Your task to perform on an android device: Search for "corsair k70" on bestbuy, select the first entry, and add it to the cart. Image 0: 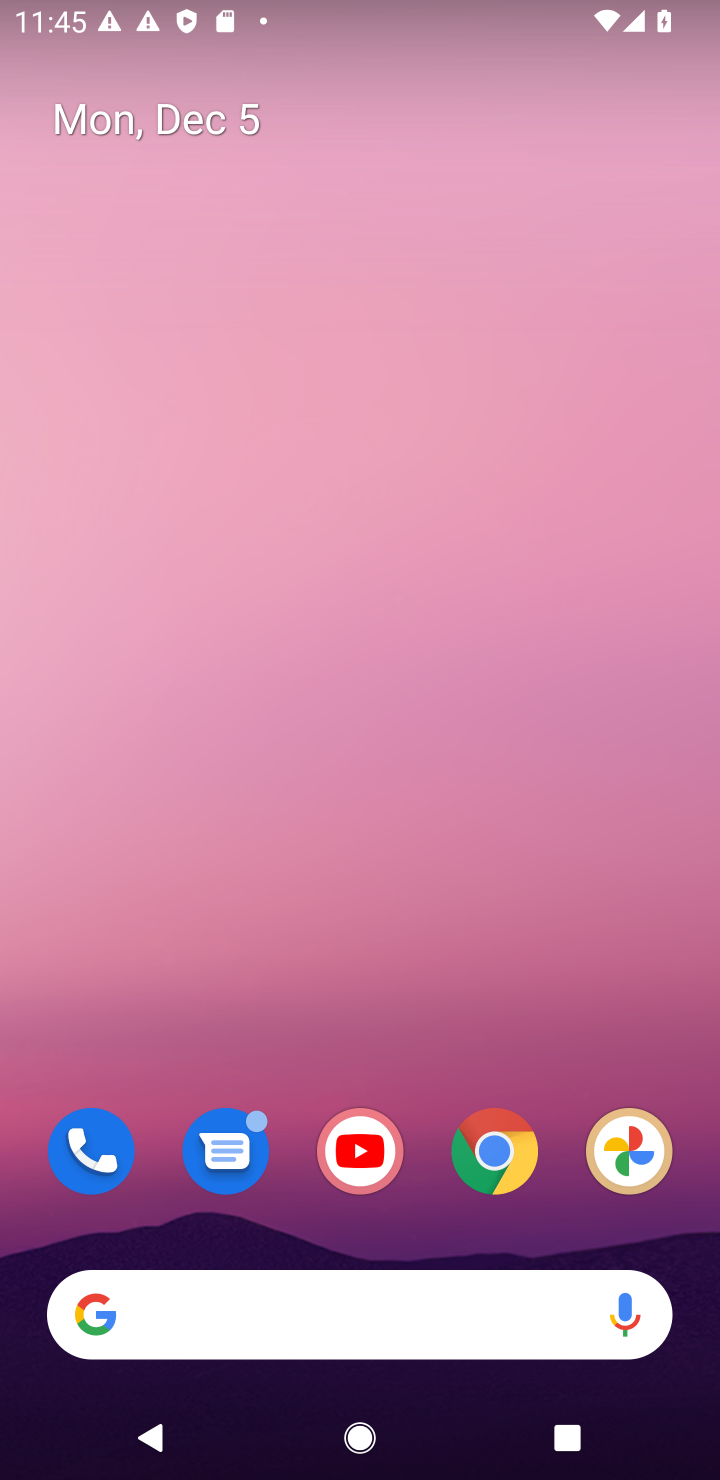
Step 0: click (499, 1172)
Your task to perform on an android device: Search for "corsair k70" on bestbuy, select the first entry, and add it to the cart. Image 1: 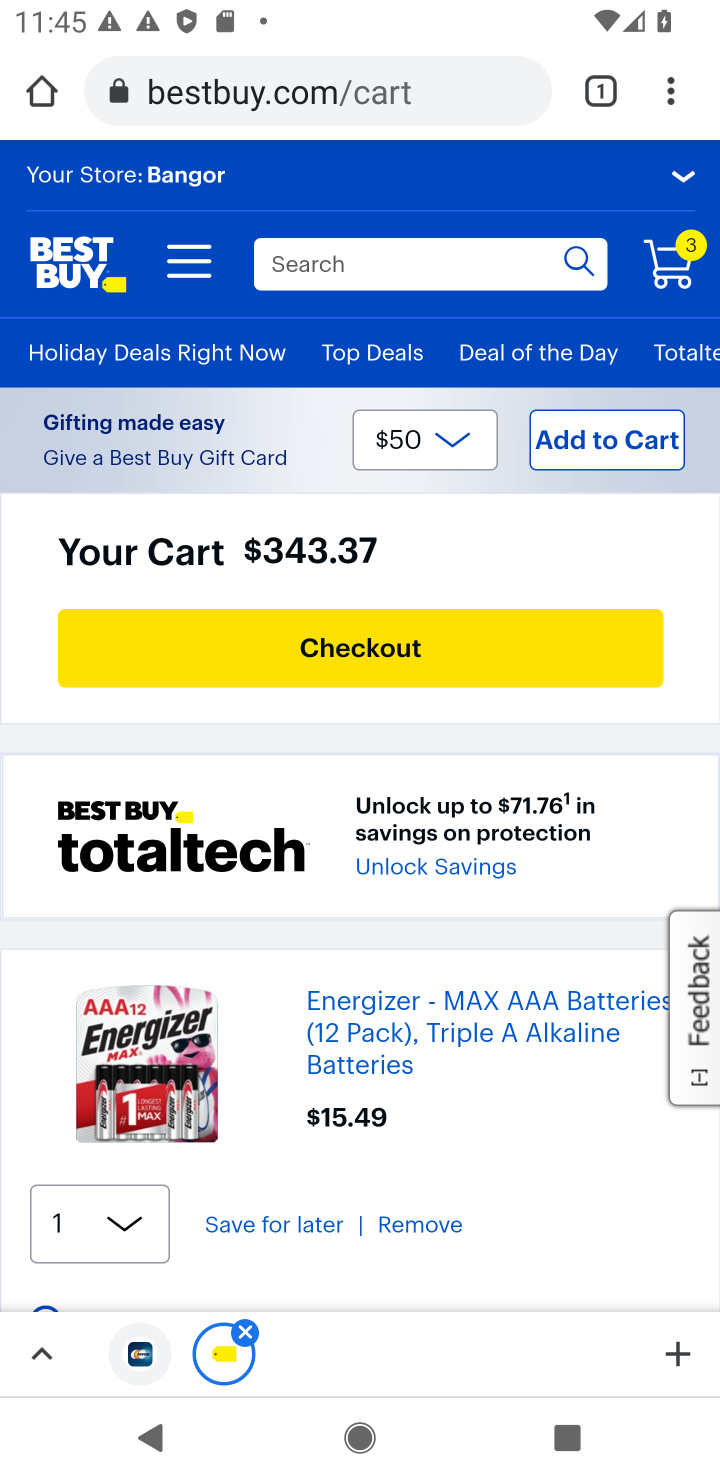
Step 1: click (308, 268)
Your task to perform on an android device: Search for "corsair k70" on bestbuy, select the first entry, and add it to the cart. Image 2: 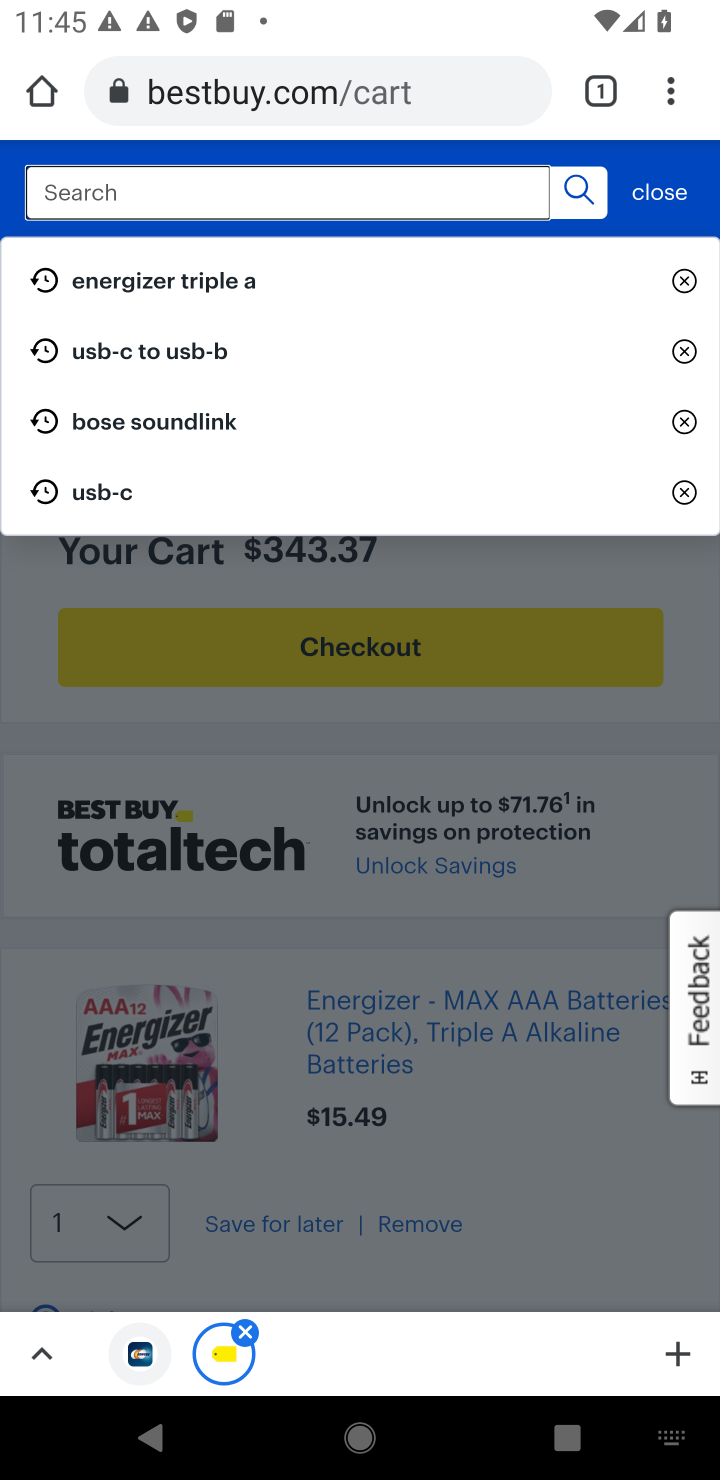
Step 2: type "corsair k70"
Your task to perform on an android device: Search for "corsair k70" on bestbuy, select the first entry, and add it to the cart. Image 3: 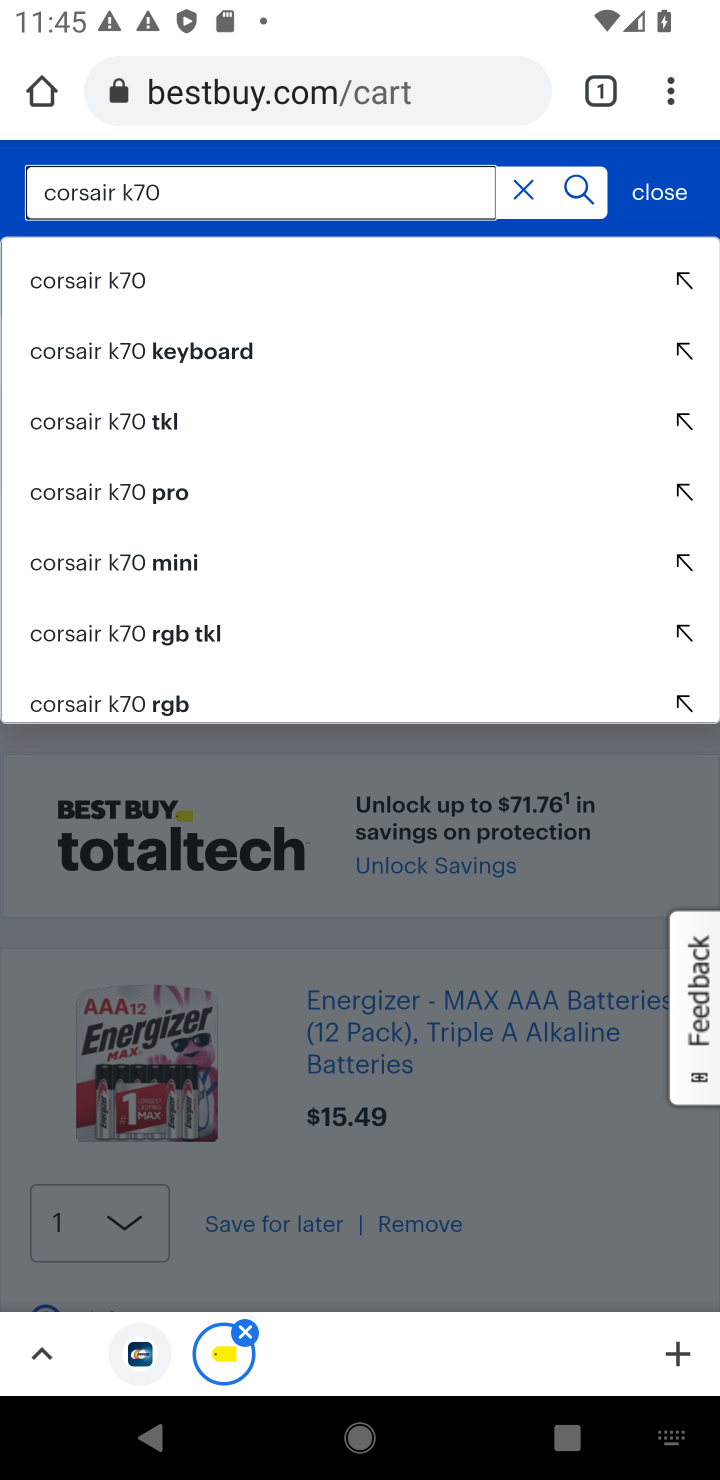
Step 3: click (100, 289)
Your task to perform on an android device: Search for "corsair k70" on bestbuy, select the first entry, and add it to the cart. Image 4: 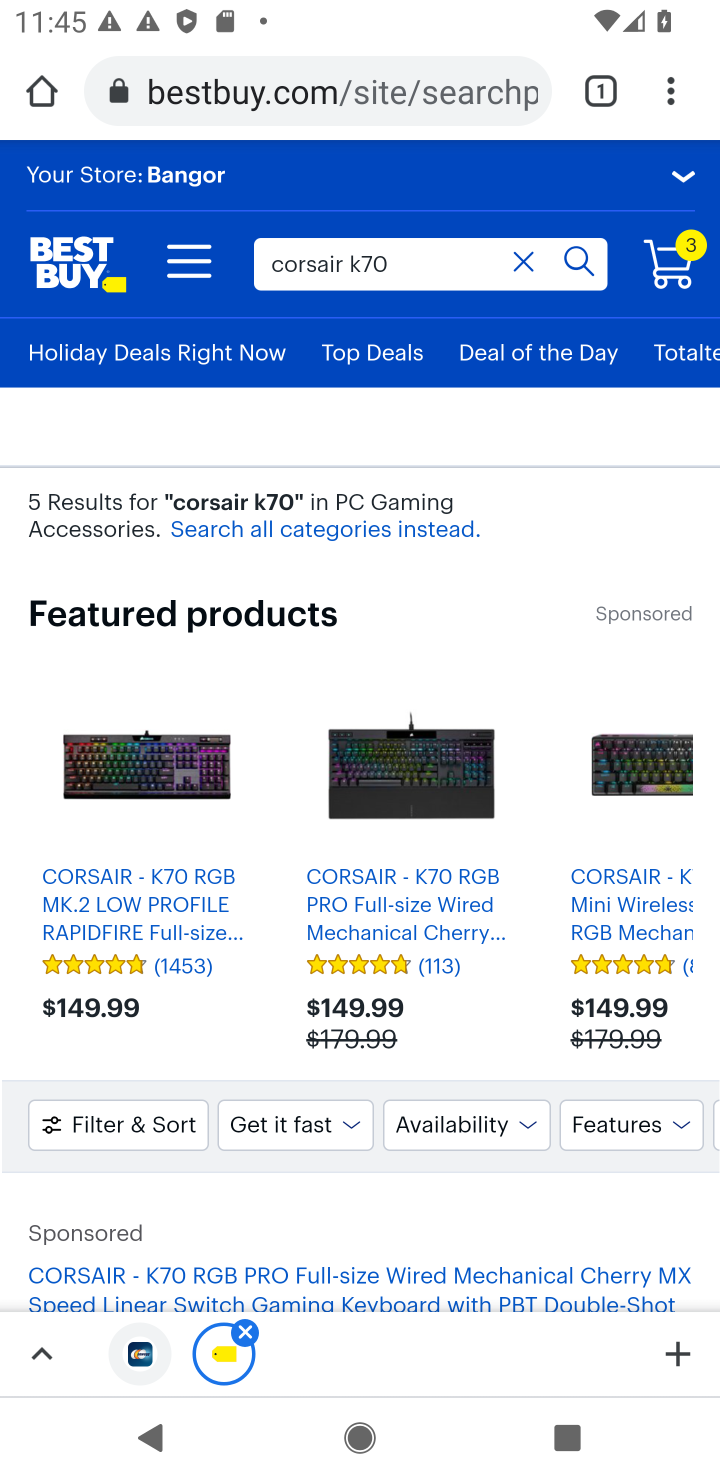
Step 4: drag from (280, 866) to (282, 359)
Your task to perform on an android device: Search for "corsair k70" on bestbuy, select the first entry, and add it to the cart. Image 5: 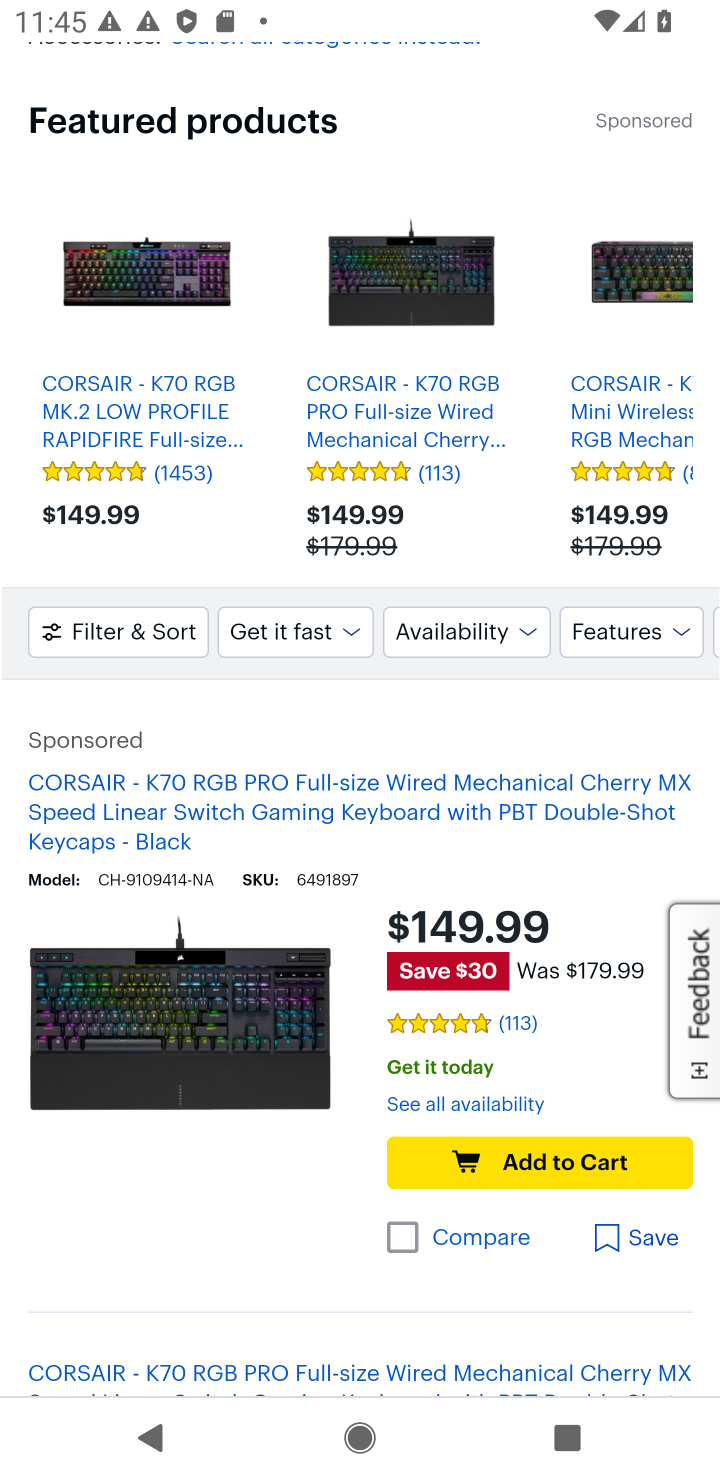
Step 5: drag from (282, 752) to (292, 474)
Your task to perform on an android device: Search for "corsair k70" on bestbuy, select the first entry, and add it to the cart. Image 6: 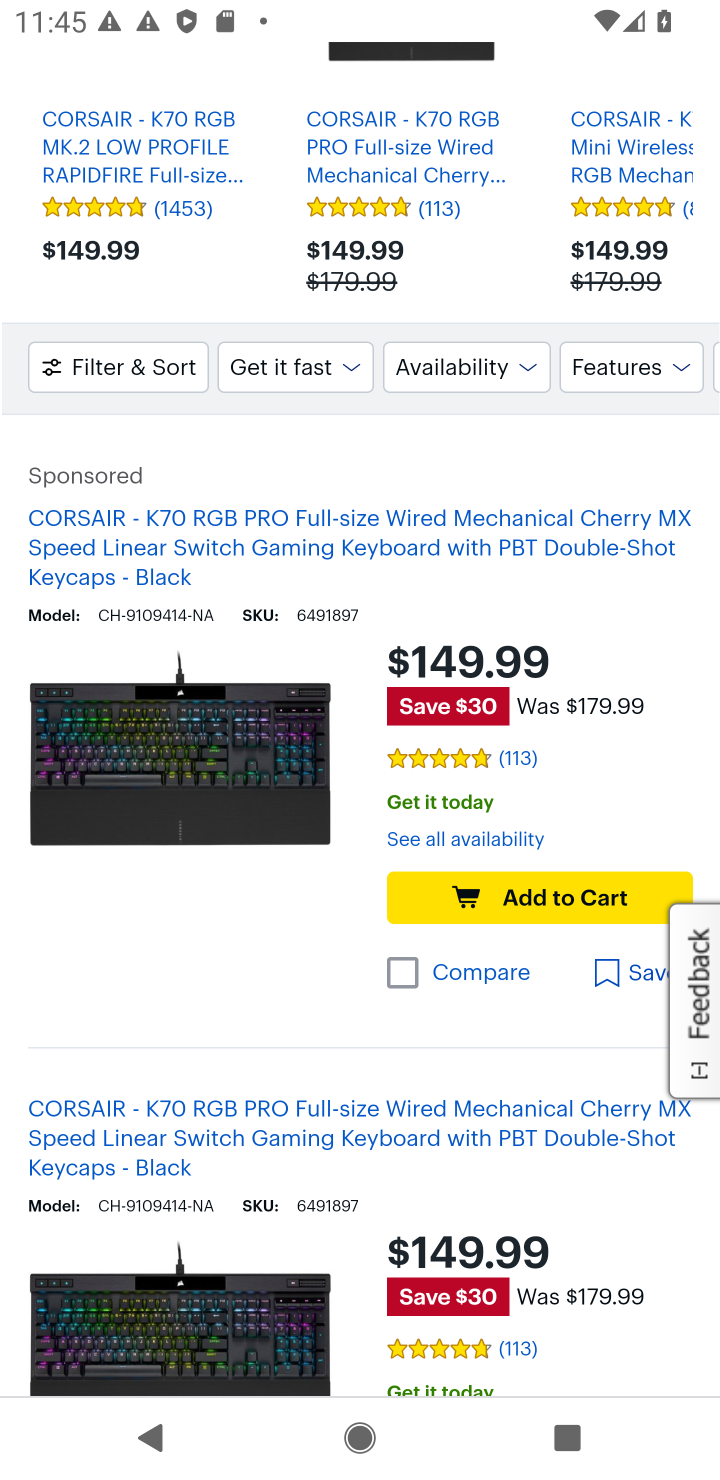
Step 6: click (521, 900)
Your task to perform on an android device: Search for "corsair k70" on bestbuy, select the first entry, and add it to the cart. Image 7: 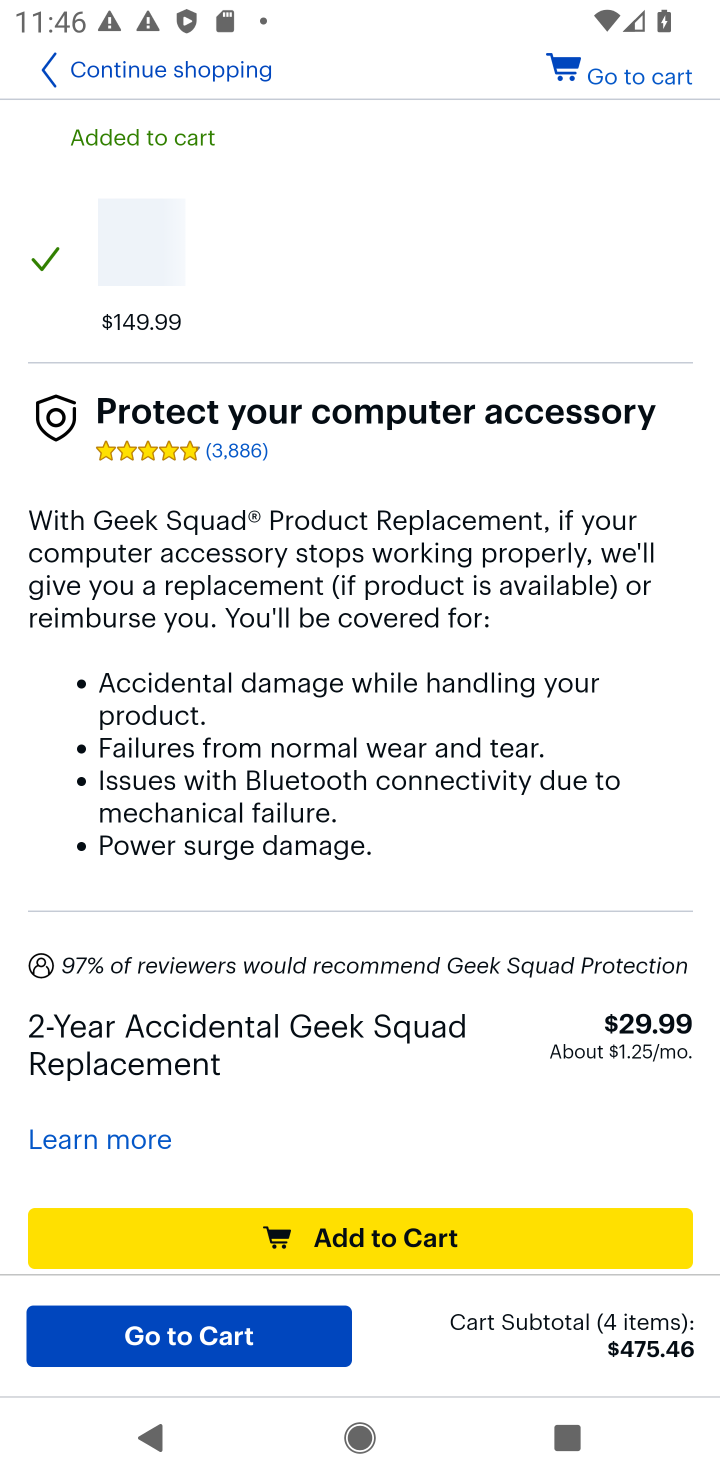
Step 7: task complete